Your task to perform on an android device: turn smart compose on in the gmail app Image 0: 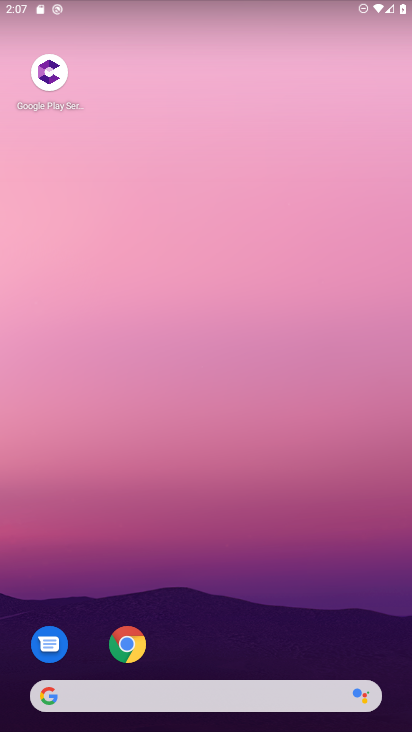
Step 0: drag from (234, 640) to (226, 151)
Your task to perform on an android device: turn smart compose on in the gmail app Image 1: 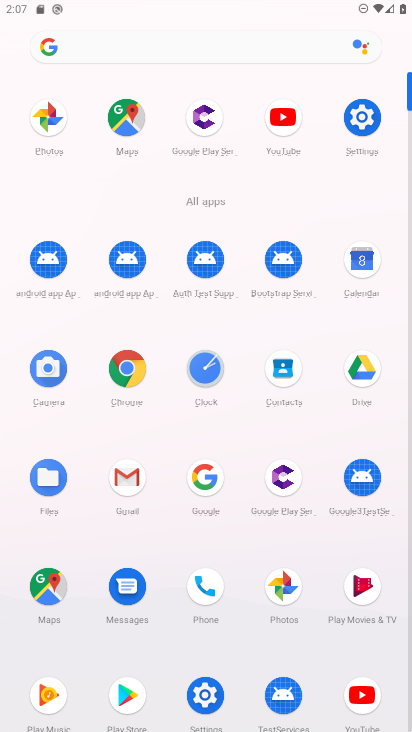
Step 1: click (127, 481)
Your task to perform on an android device: turn smart compose on in the gmail app Image 2: 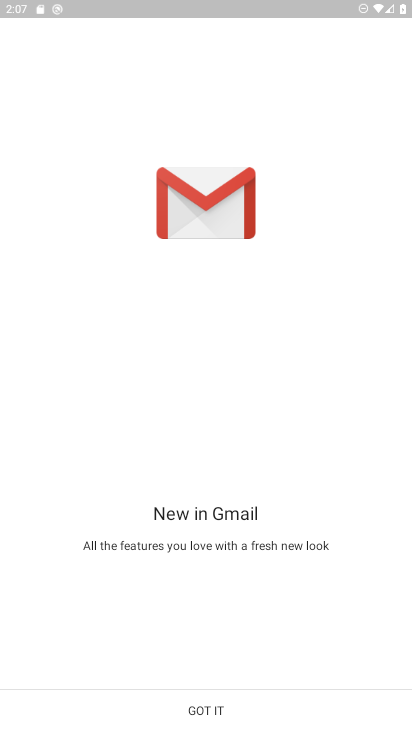
Step 2: click (213, 720)
Your task to perform on an android device: turn smart compose on in the gmail app Image 3: 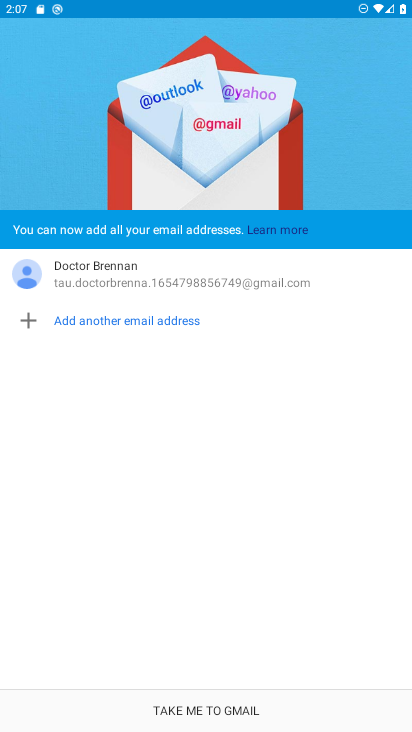
Step 3: click (147, 262)
Your task to perform on an android device: turn smart compose on in the gmail app Image 4: 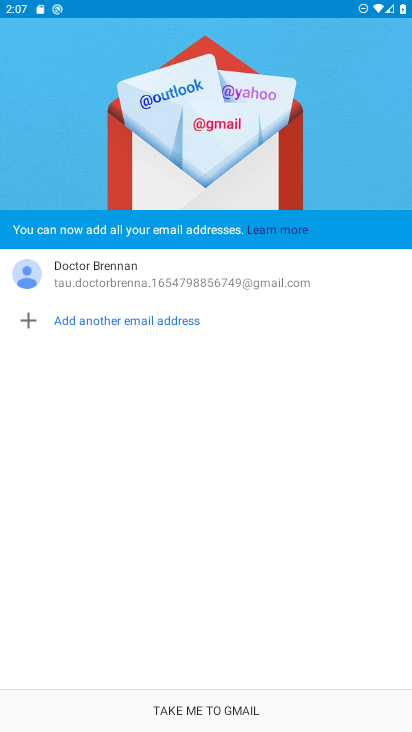
Step 4: click (242, 710)
Your task to perform on an android device: turn smart compose on in the gmail app Image 5: 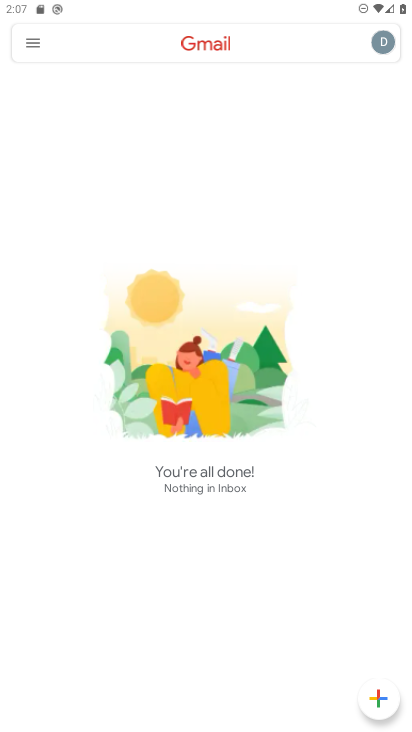
Step 5: click (27, 40)
Your task to perform on an android device: turn smart compose on in the gmail app Image 6: 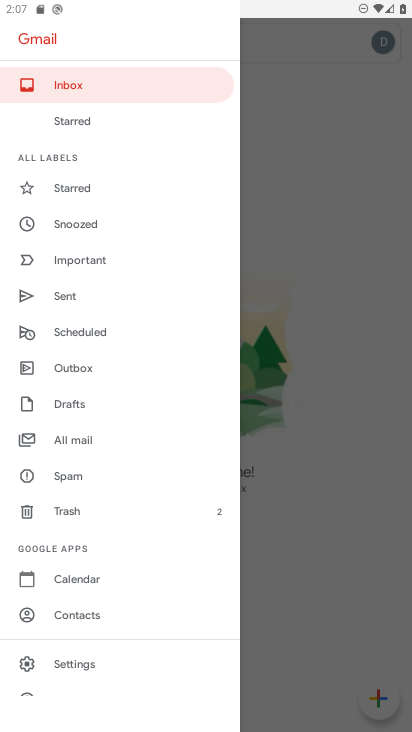
Step 6: click (87, 658)
Your task to perform on an android device: turn smart compose on in the gmail app Image 7: 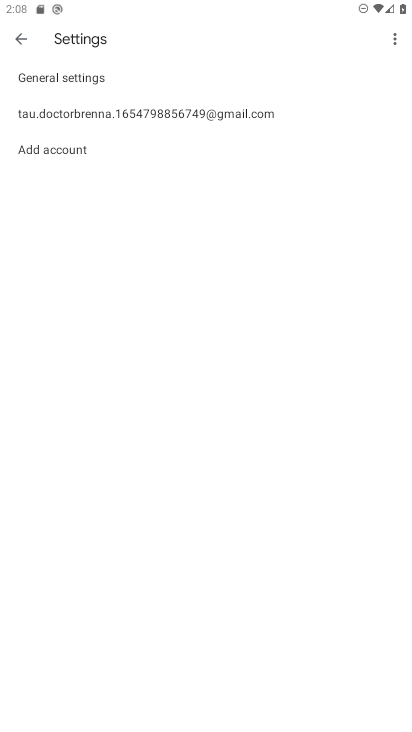
Step 7: click (71, 72)
Your task to perform on an android device: turn smart compose on in the gmail app Image 8: 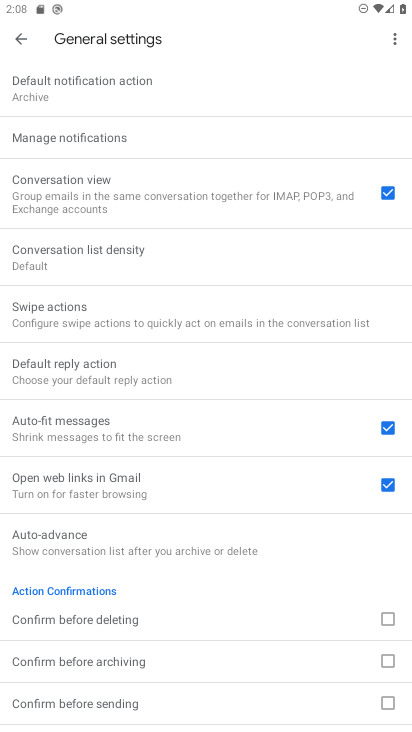
Step 8: click (18, 46)
Your task to perform on an android device: turn smart compose on in the gmail app Image 9: 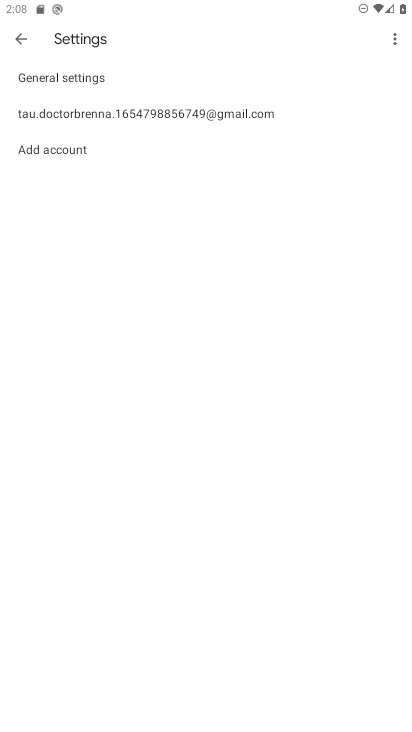
Step 9: click (84, 119)
Your task to perform on an android device: turn smart compose on in the gmail app Image 10: 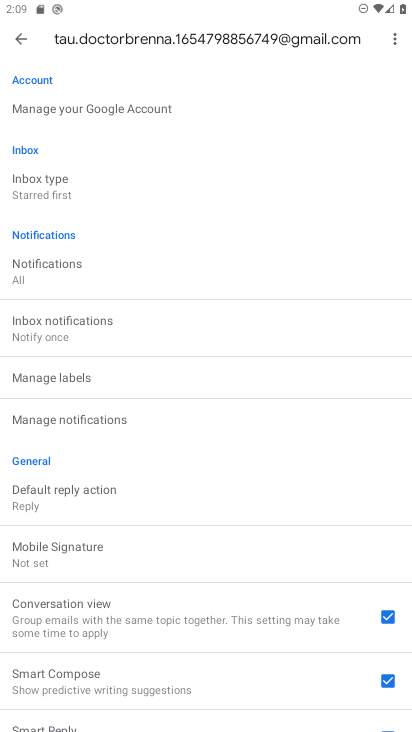
Step 10: task complete